Your task to perform on an android device: Check the weather Image 0: 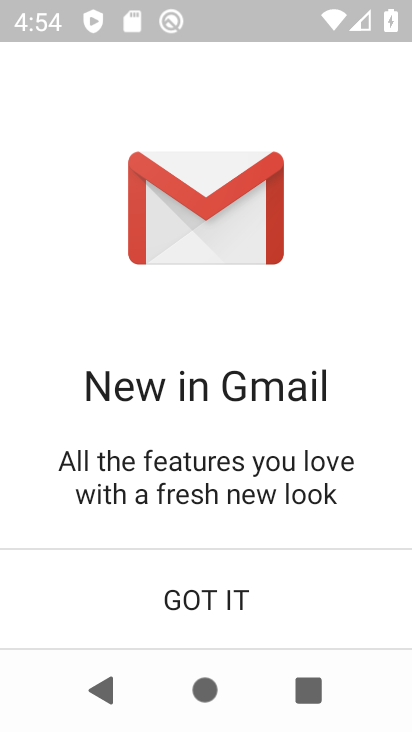
Step 0: click (214, 603)
Your task to perform on an android device: Check the weather Image 1: 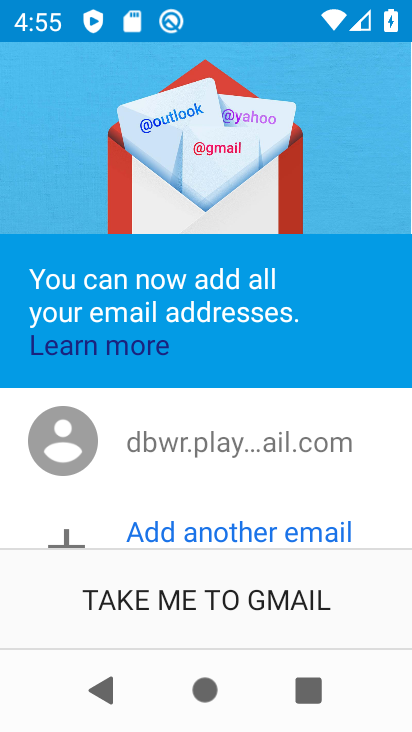
Step 1: press home button
Your task to perform on an android device: Check the weather Image 2: 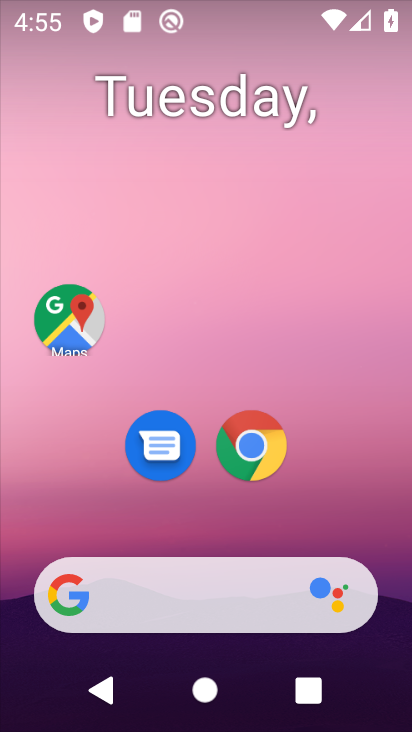
Step 2: click (268, 441)
Your task to perform on an android device: Check the weather Image 3: 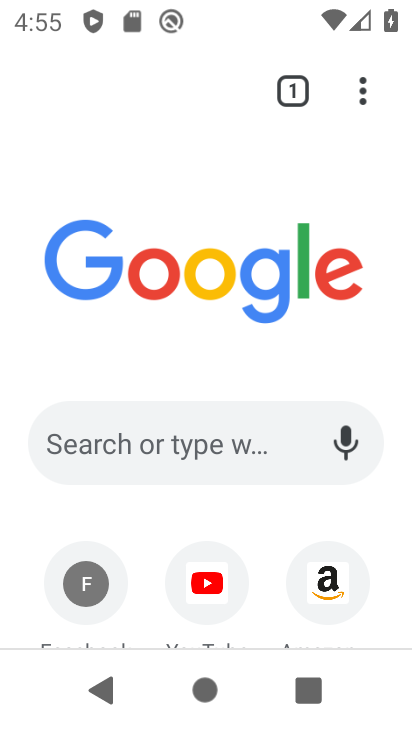
Step 3: click (200, 452)
Your task to perform on an android device: Check the weather Image 4: 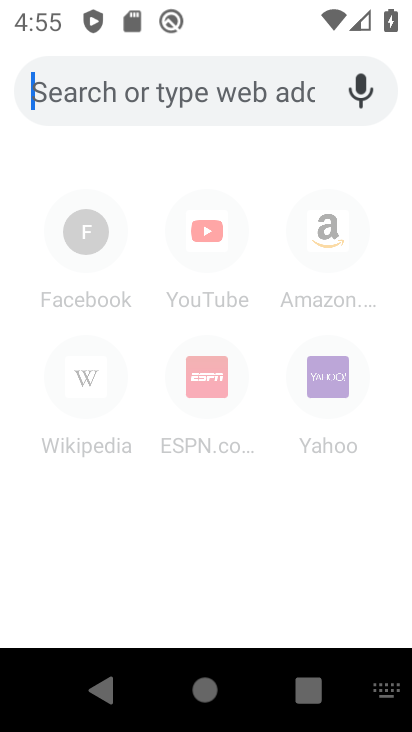
Step 4: type "weather"
Your task to perform on an android device: Check the weather Image 5: 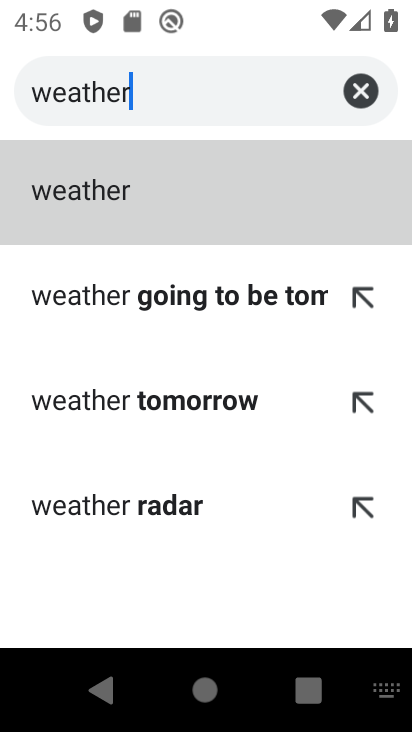
Step 5: click (81, 193)
Your task to perform on an android device: Check the weather Image 6: 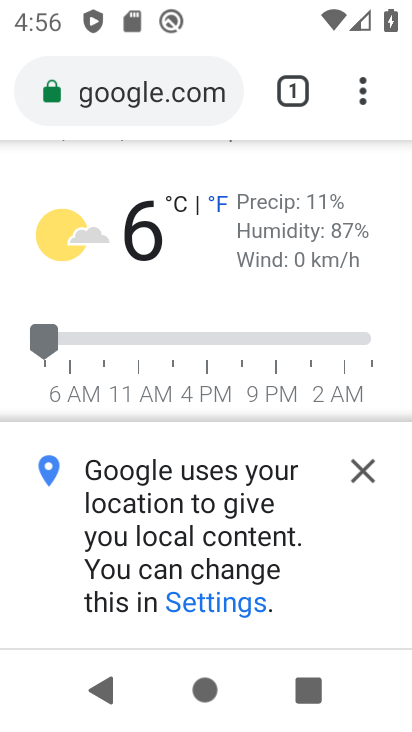
Step 6: task complete